Your task to perform on an android device: open sync settings in chrome Image 0: 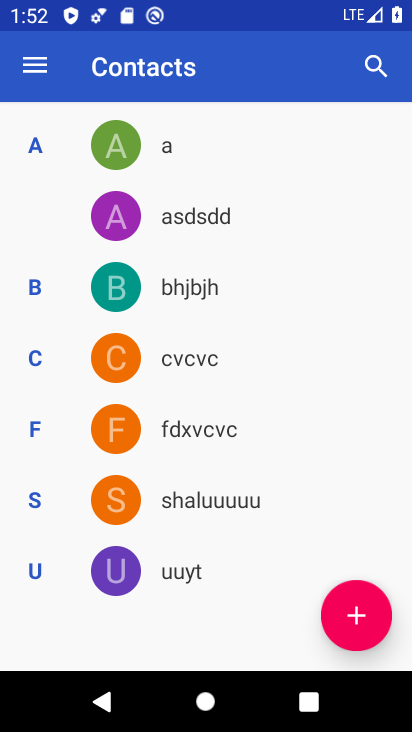
Step 0: press home button
Your task to perform on an android device: open sync settings in chrome Image 1: 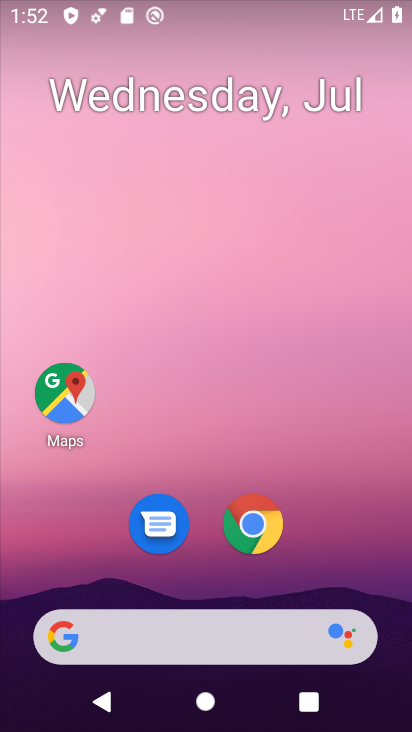
Step 1: click (269, 539)
Your task to perform on an android device: open sync settings in chrome Image 2: 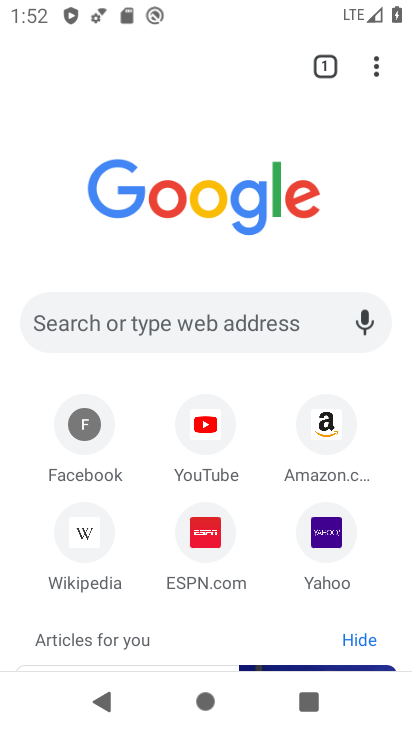
Step 2: click (374, 70)
Your task to perform on an android device: open sync settings in chrome Image 3: 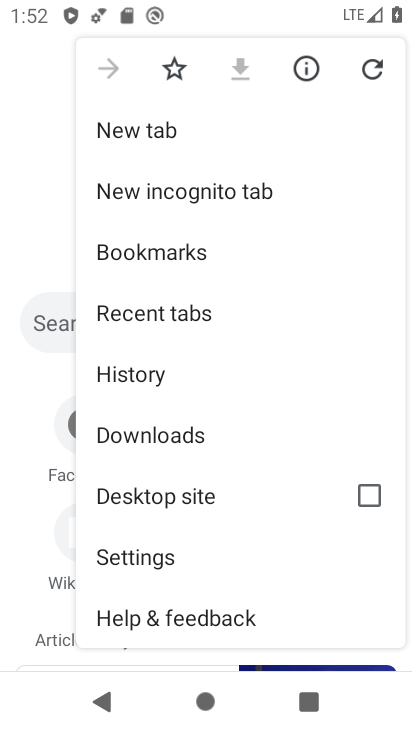
Step 3: click (157, 548)
Your task to perform on an android device: open sync settings in chrome Image 4: 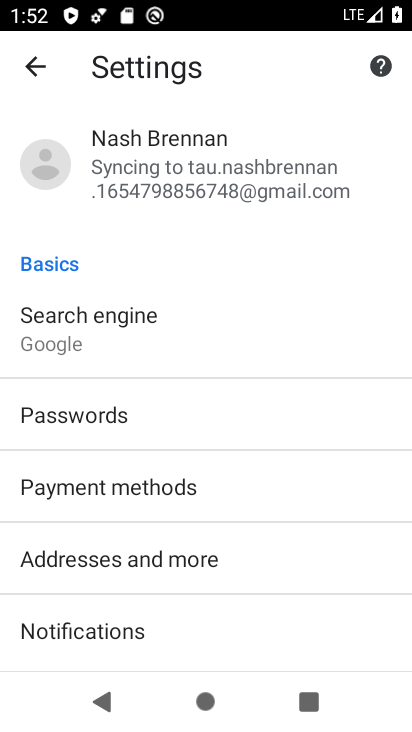
Step 4: click (233, 166)
Your task to perform on an android device: open sync settings in chrome Image 5: 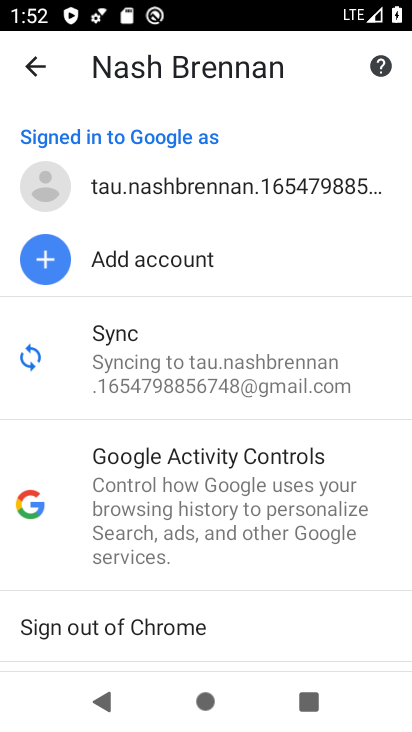
Step 5: click (188, 347)
Your task to perform on an android device: open sync settings in chrome Image 6: 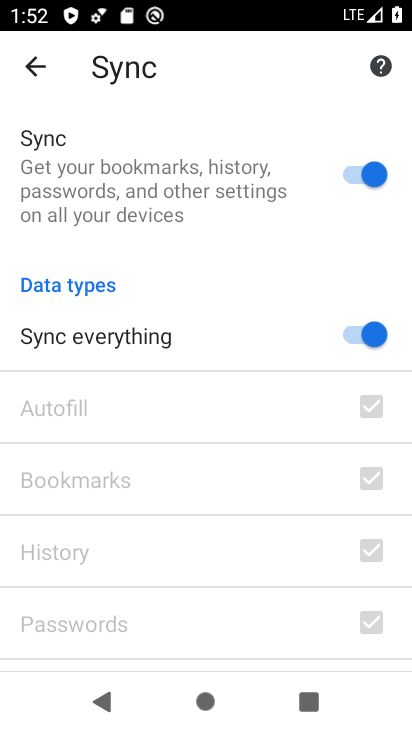
Step 6: task complete